Your task to perform on an android device: change your default location settings in chrome Image 0: 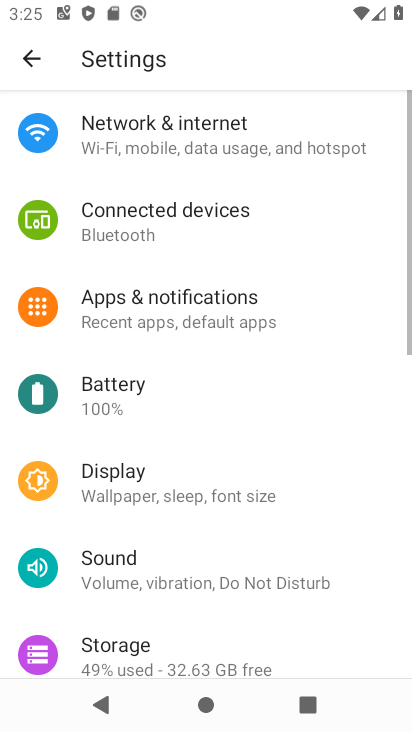
Step 0: press home button
Your task to perform on an android device: change your default location settings in chrome Image 1: 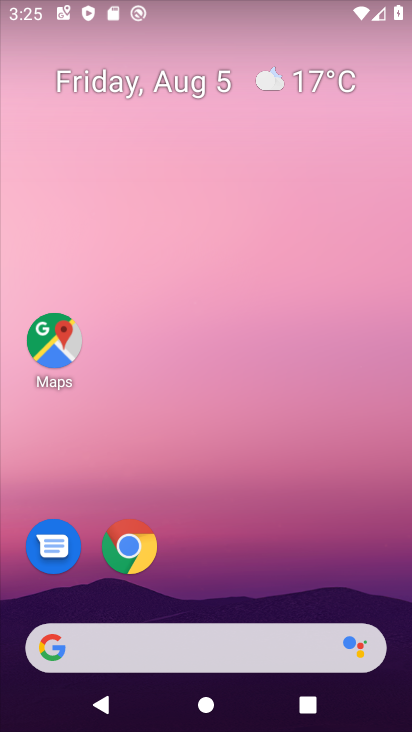
Step 1: drag from (350, 558) to (346, 68)
Your task to perform on an android device: change your default location settings in chrome Image 2: 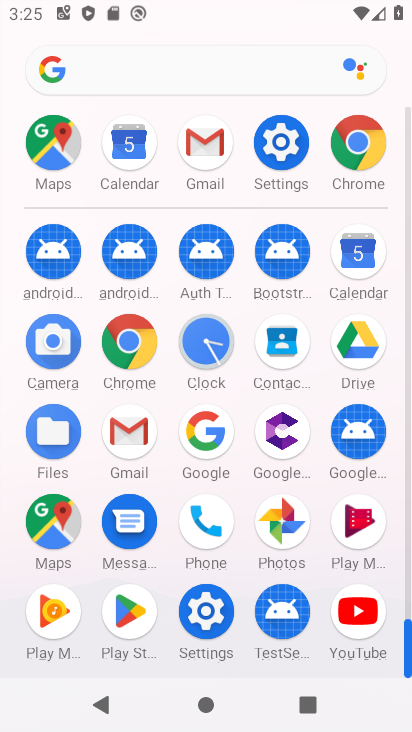
Step 2: click (140, 340)
Your task to perform on an android device: change your default location settings in chrome Image 3: 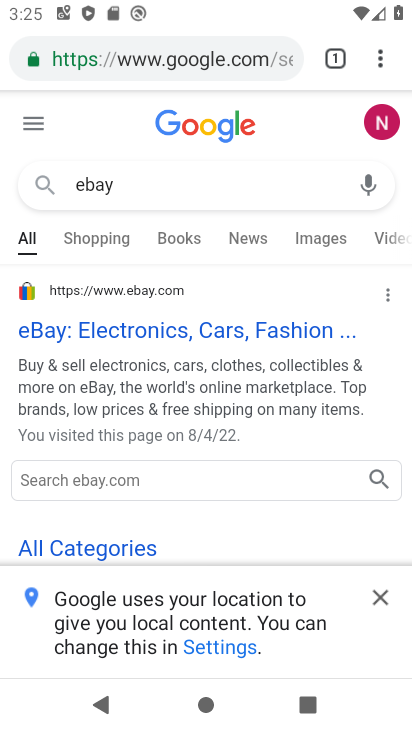
Step 3: click (380, 64)
Your task to perform on an android device: change your default location settings in chrome Image 4: 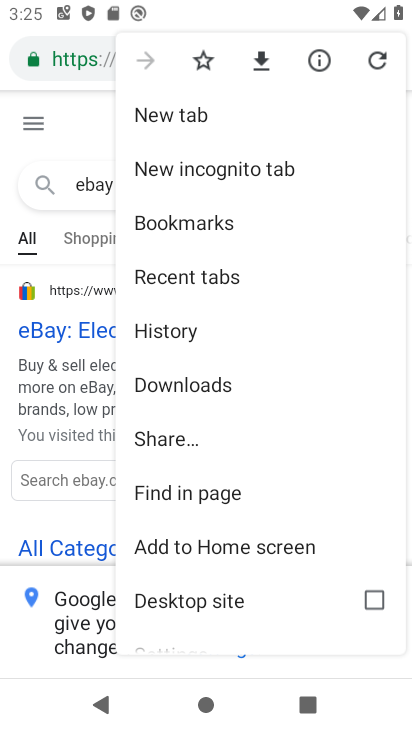
Step 4: drag from (326, 353) to (321, 269)
Your task to perform on an android device: change your default location settings in chrome Image 5: 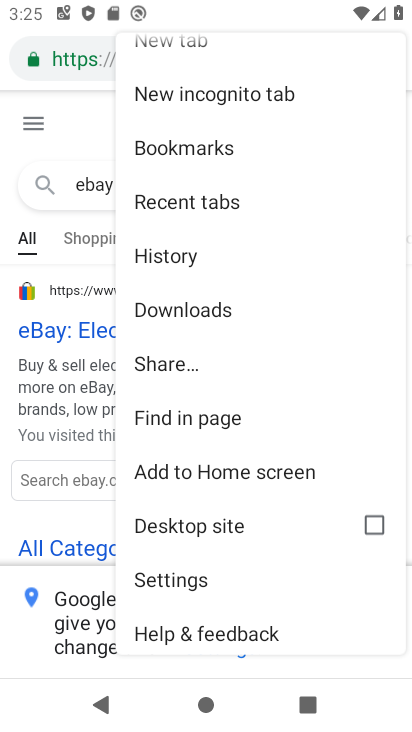
Step 5: drag from (329, 428) to (332, 274)
Your task to perform on an android device: change your default location settings in chrome Image 6: 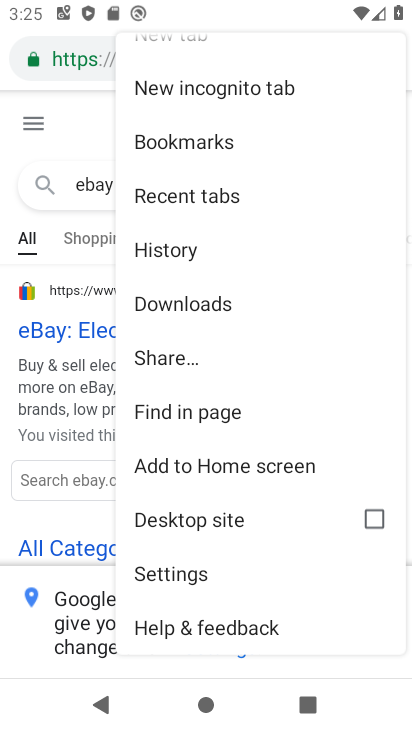
Step 6: click (216, 569)
Your task to perform on an android device: change your default location settings in chrome Image 7: 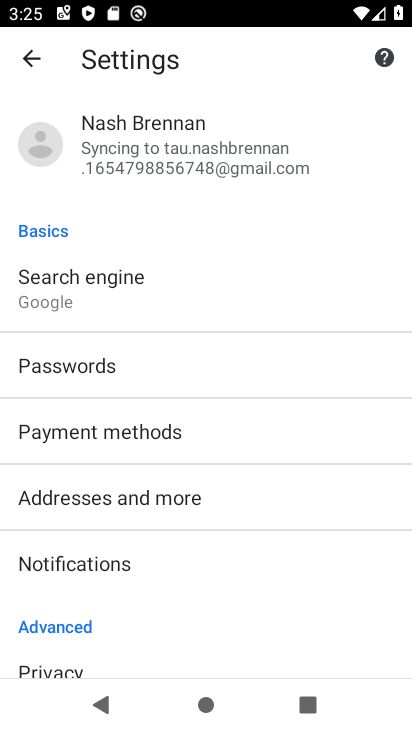
Step 7: drag from (305, 592) to (307, 451)
Your task to perform on an android device: change your default location settings in chrome Image 8: 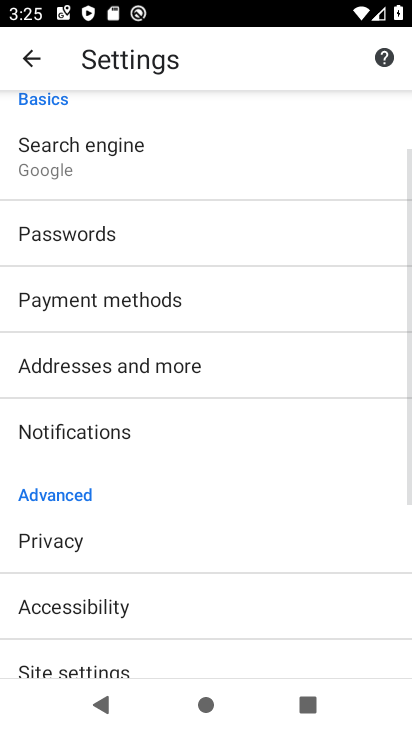
Step 8: drag from (293, 547) to (296, 375)
Your task to perform on an android device: change your default location settings in chrome Image 9: 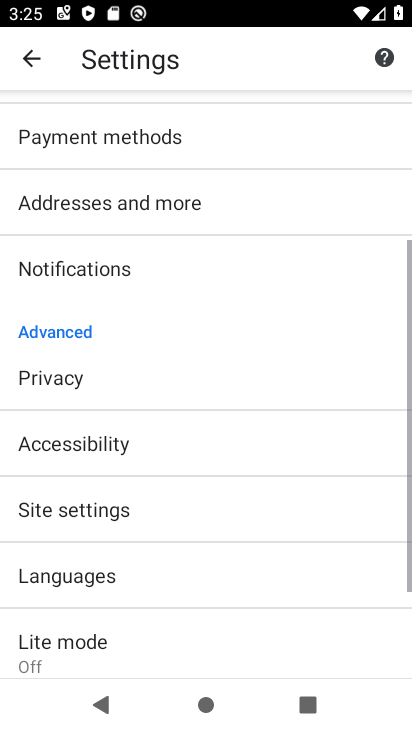
Step 9: drag from (297, 527) to (295, 387)
Your task to perform on an android device: change your default location settings in chrome Image 10: 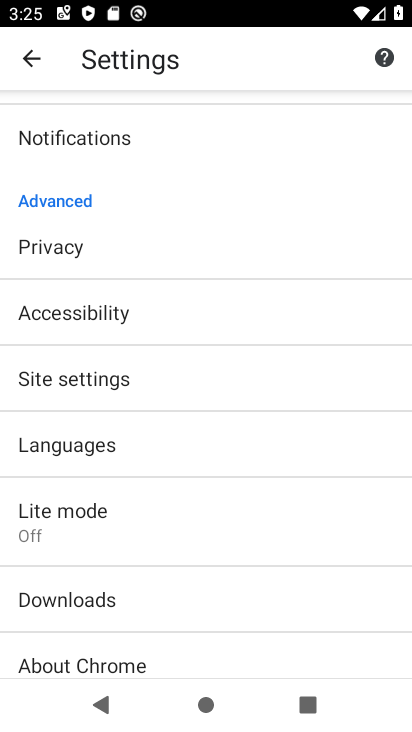
Step 10: click (272, 371)
Your task to perform on an android device: change your default location settings in chrome Image 11: 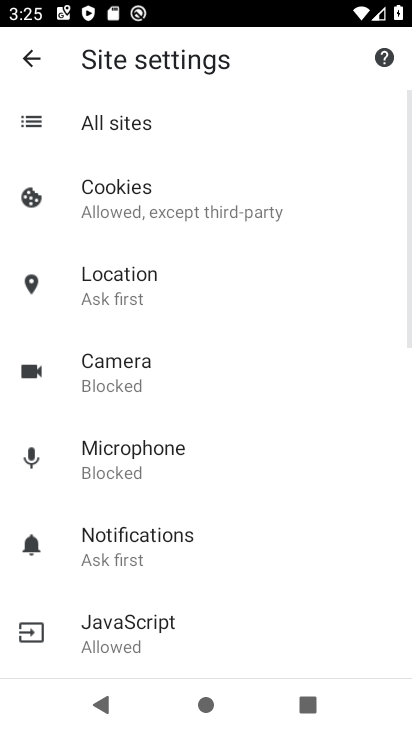
Step 11: drag from (316, 454) to (329, 322)
Your task to perform on an android device: change your default location settings in chrome Image 12: 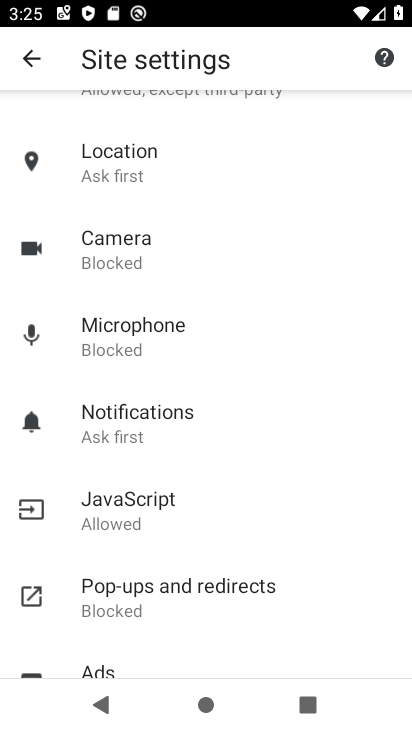
Step 12: click (195, 166)
Your task to perform on an android device: change your default location settings in chrome Image 13: 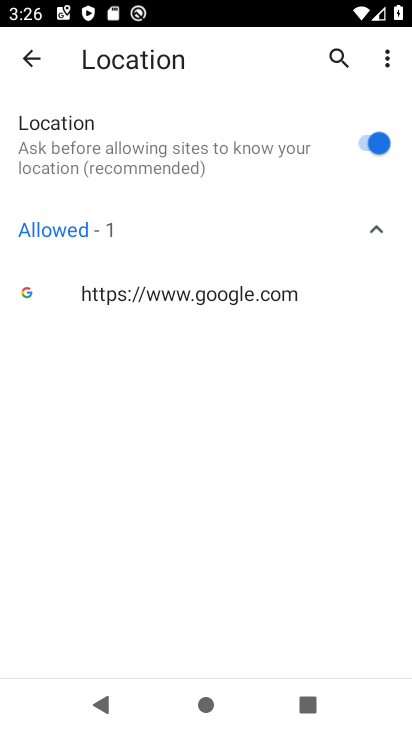
Step 13: task complete